Your task to perform on an android device: turn off improve location accuracy Image 0: 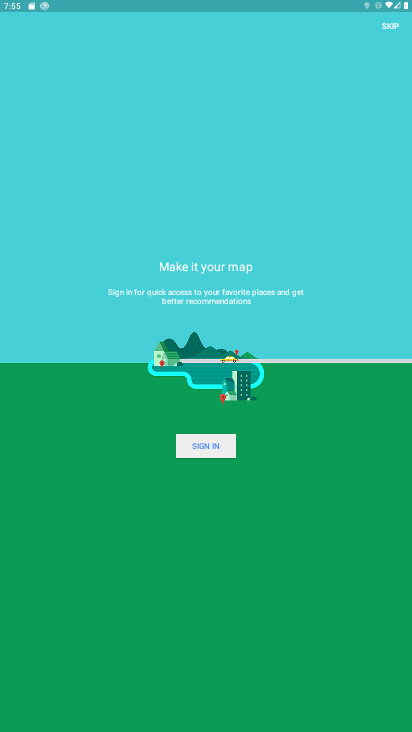
Step 0: press home button
Your task to perform on an android device: turn off improve location accuracy Image 1: 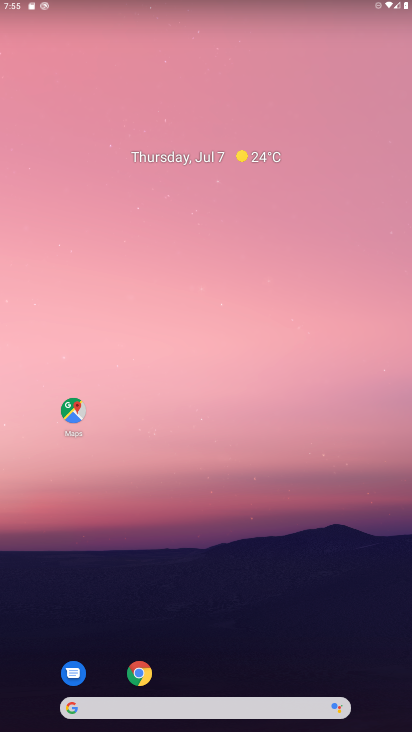
Step 1: drag from (27, 527) to (207, 149)
Your task to perform on an android device: turn off improve location accuracy Image 2: 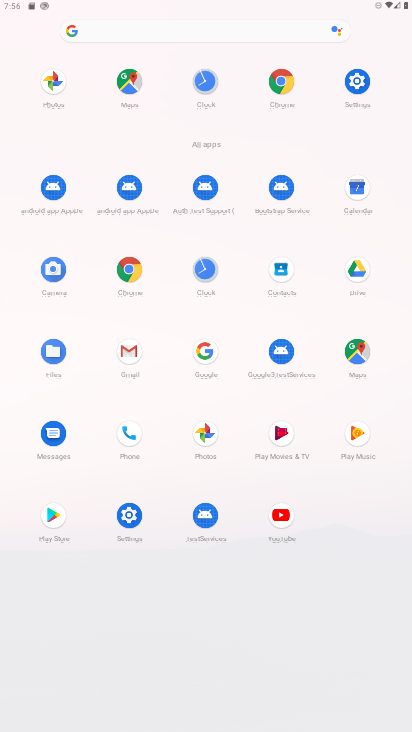
Step 2: click (345, 81)
Your task to perform on an android device: turn off improve location accuracy Image 3: 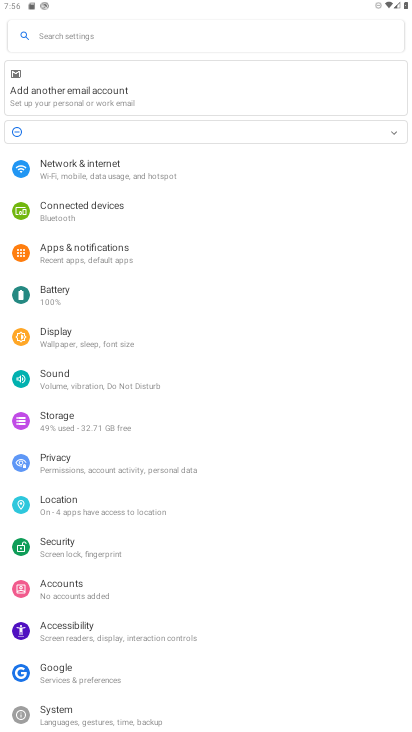
Step 3: click (92, 507)
Your task to perform on an android device: turn off improve location accuracy Image 4: 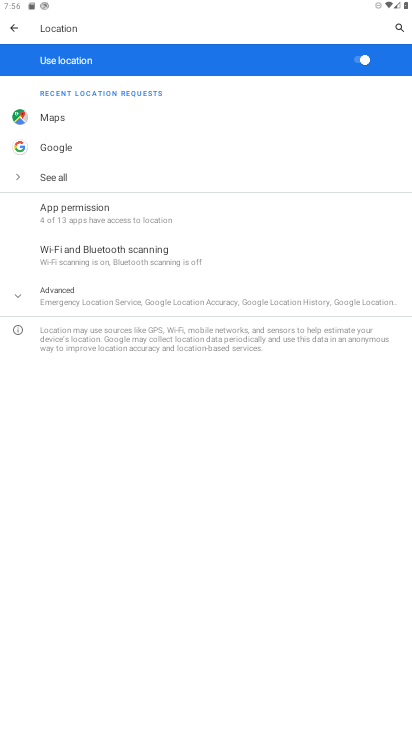
Step 4: click (144, 286)
Your task to perform on an android device: turn off improve location accuracy Image 5: 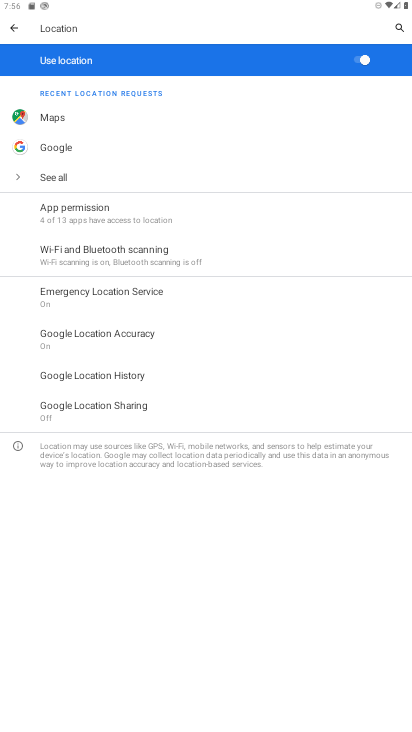
Step 5: click (106, 325)
Your task to perform on an android device: turn off improve location accuracy Image 6: 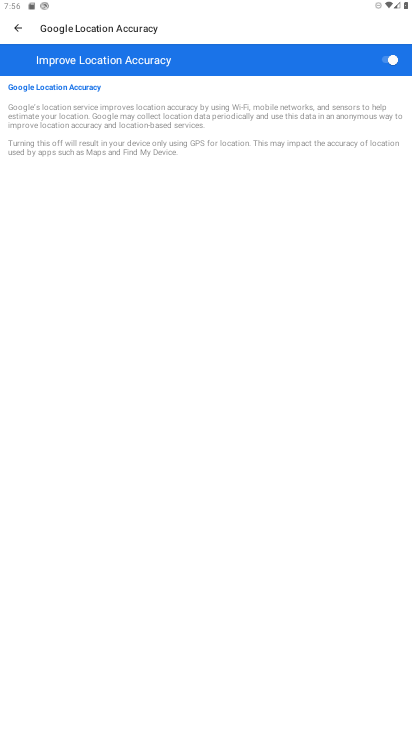
Step 6: click (402, 54)
Your task to perform on an android device: turn off improve location accuracy Image 7: 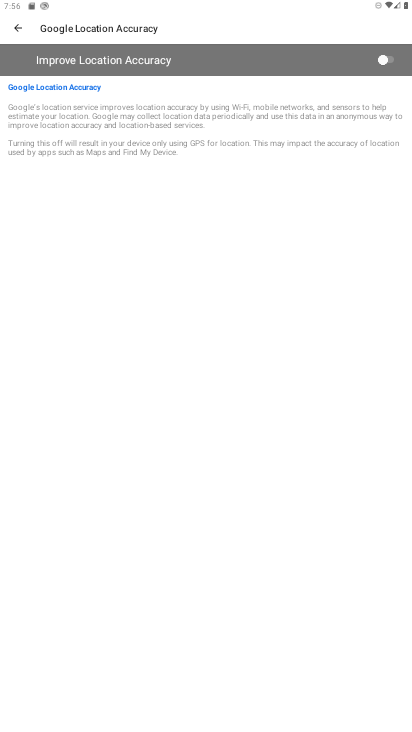
Step 7: task complete